Your task to perform on an android device: Go to location settings Image 0: 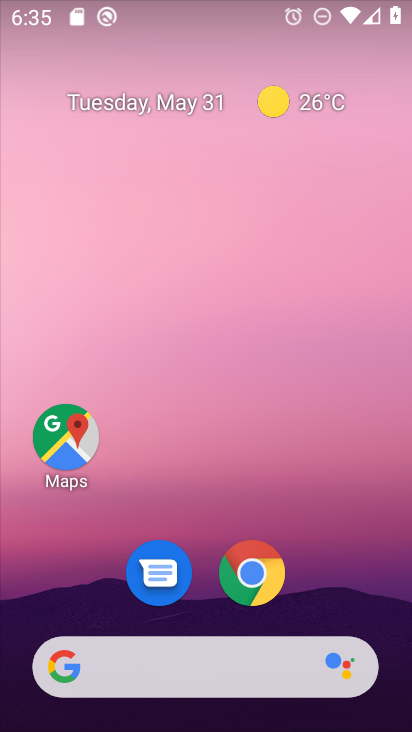
Step 0: drag from (386, 666) to (327, 80)
Your task to perform on an android device: Go to location settings Image 1: 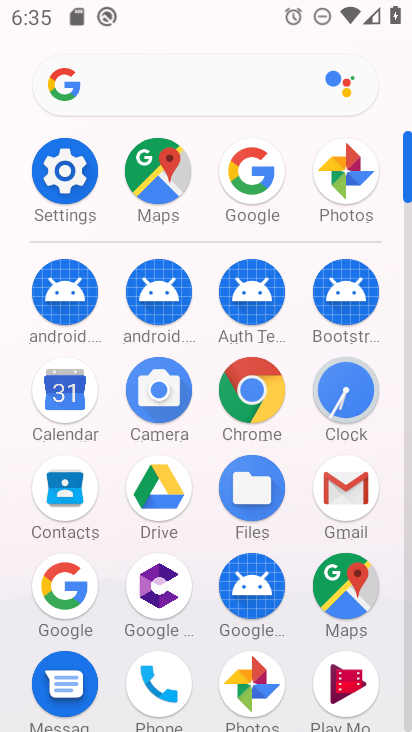
Step 1: click (48, 176)
Your task to perform on an android device: Go to location settings Image 2: 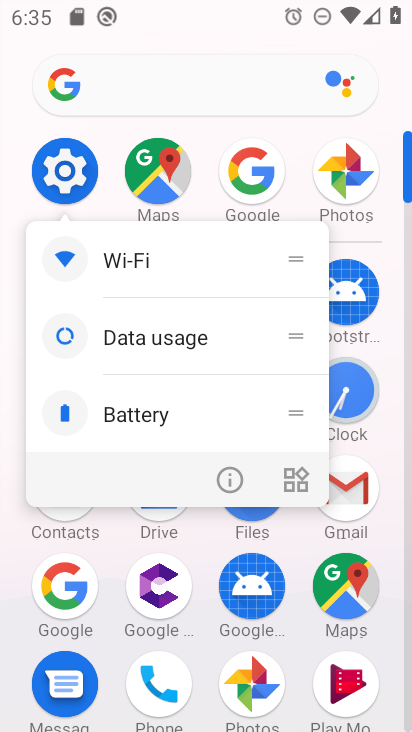
Step 2: click (48, 176)
Your task to perform on an android device: Go to location settings Image 3: 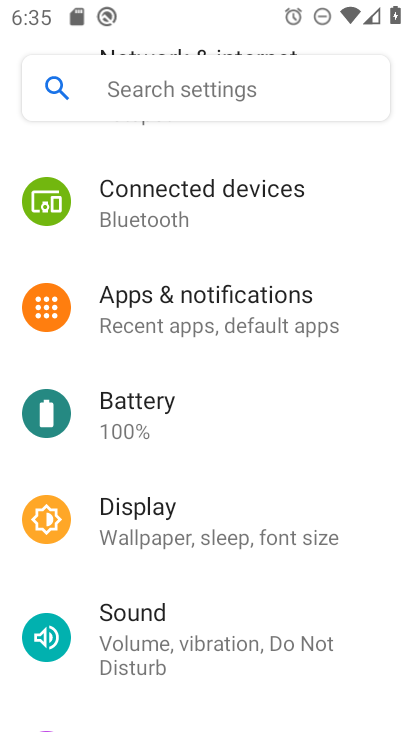
Step 3: drag from (115, 592) to (213, 149)
Your task to perform on an android device: Go to location settings Image 4: 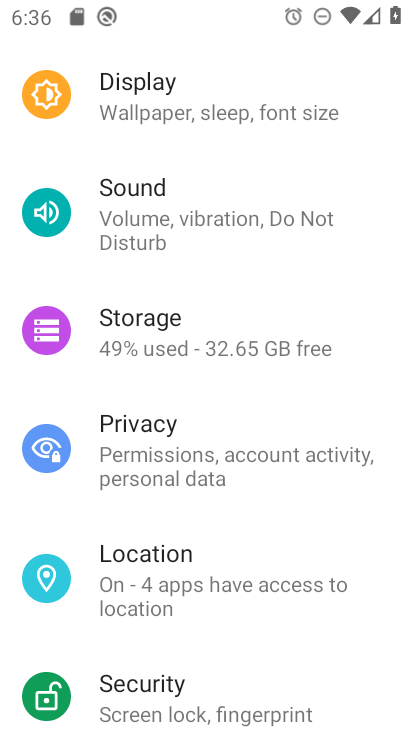
Step 4: click (162, 604)
Your task to perform on an android device: Go to location settings Image 5: 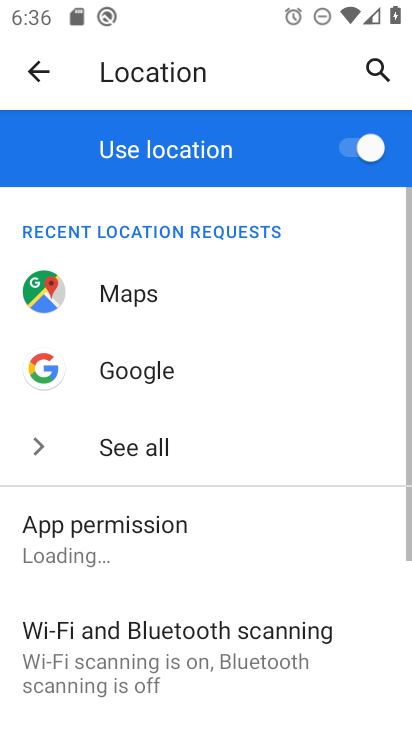
Step 5: task complete